Your task to perform on an android device: Go to CNN.com Image 0: 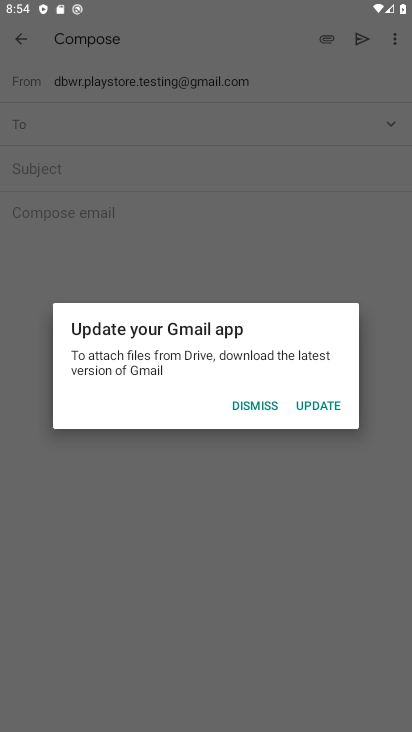
Step 0: press home button
Your task to perform on an android device: Go to CNN.com Image 1: 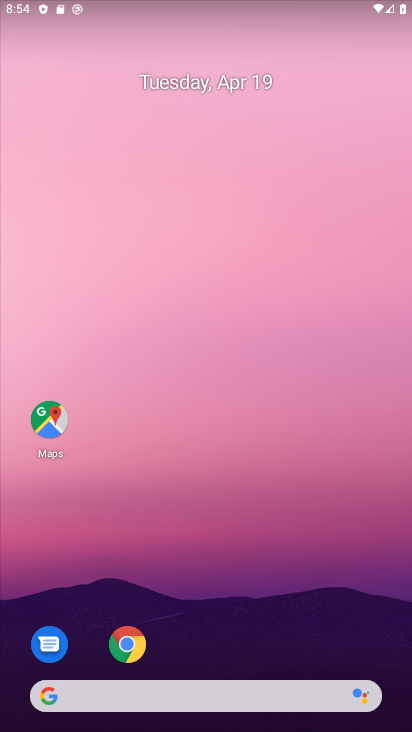
Step 1: click (121, 637)
Your task to perform on an android device: Go to CNN.com Image 2: 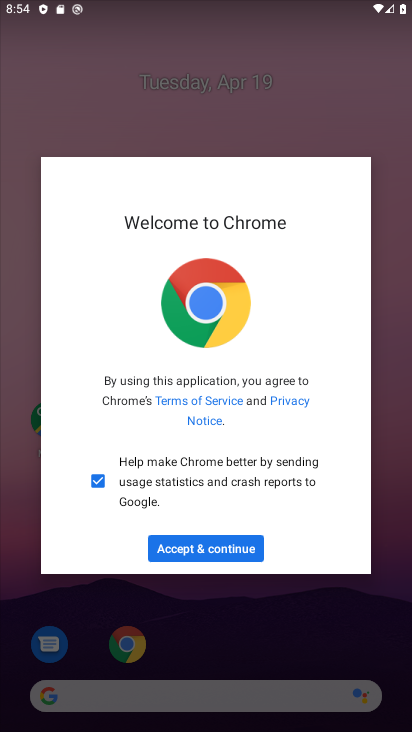
Step 2: click (221, 552)
Your task to perform on an android device: Go to CNN.com Image 3: 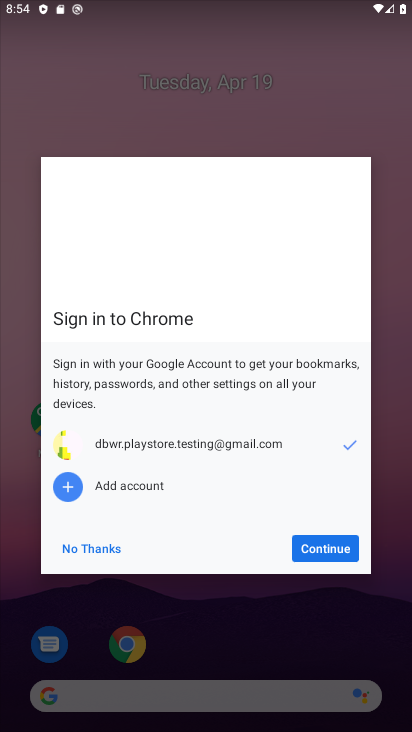
Step 3: click (324, 550)
Your task to perform on an android device: Go to CNN.com Image 4: 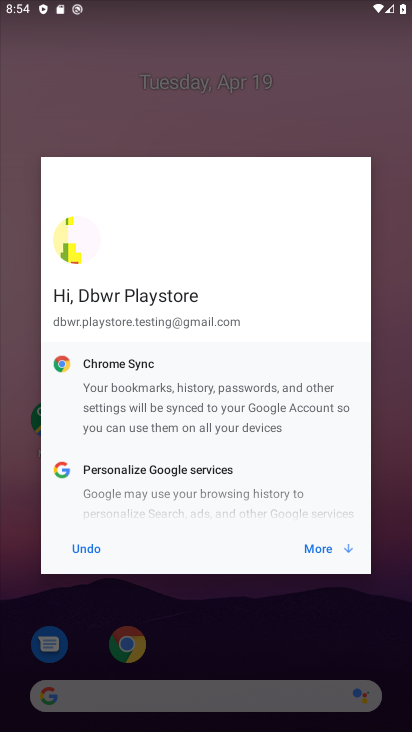
Step 4: click (324, 550)
Your task to perform on an android device: Go to CNN.com Image 5: 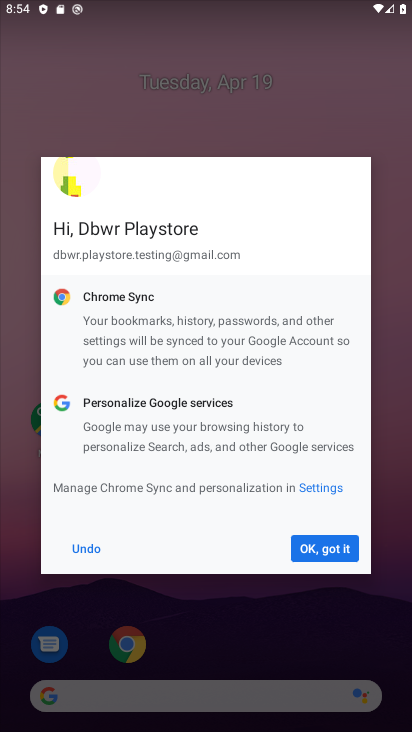
Step 5: click (324, 550)
Your task to perform on an android device: Go to CNN.com Image 6: 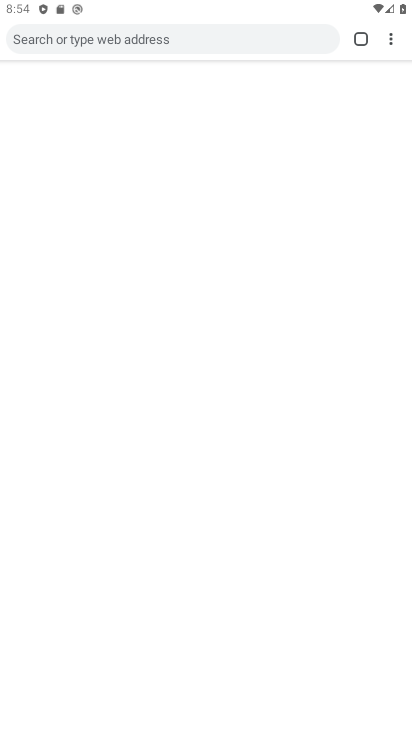
Step 6: click (324, 550)
Your task to perform on an android device: Go to CNN.com Image 7: 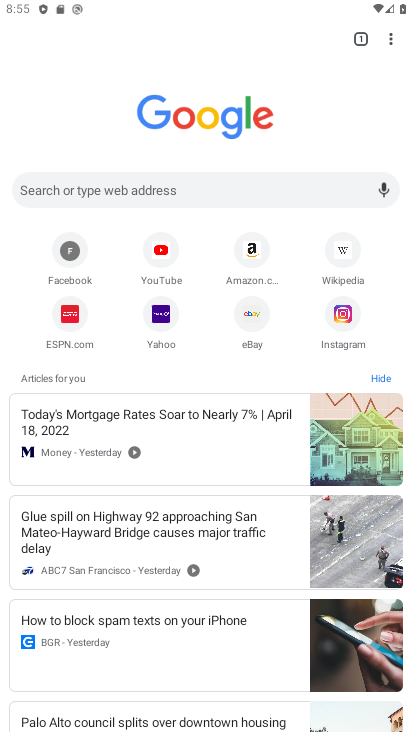
Step 7: click (161, 183)
Your task to perform on an android device: Go to CNN.com Image 8: 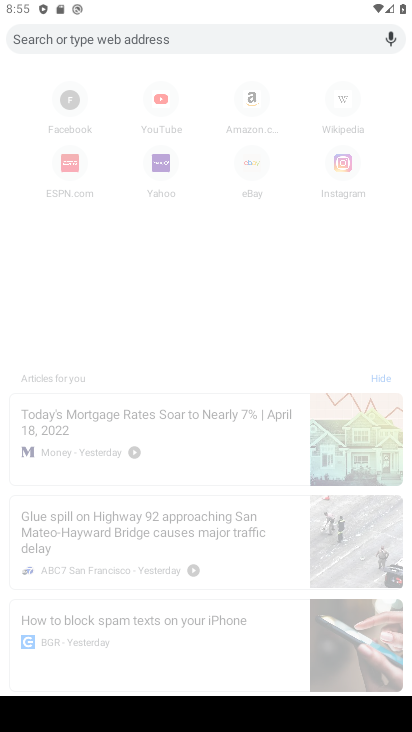
Step 8: type "CNN.com"
Your task to perform on an android device: Go to CNN.com Image 9: 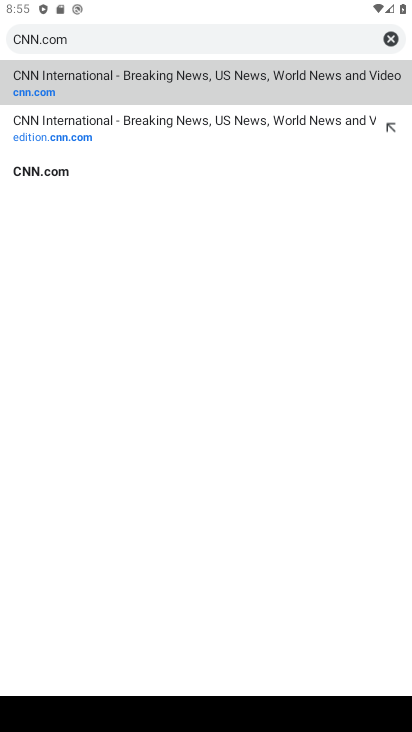
Step 9: click (53, 167)
Your task to perform on an android device: Go to CNN.com Image 10: 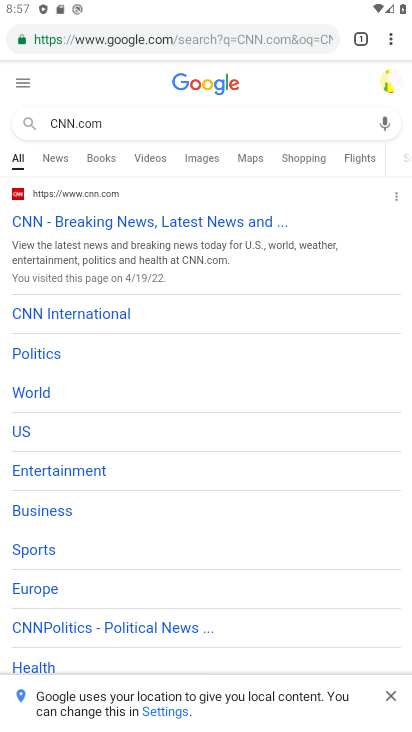
Step 10: click (151, 225)
Your task to perform on an android device: Go to CNN.com Image 11: 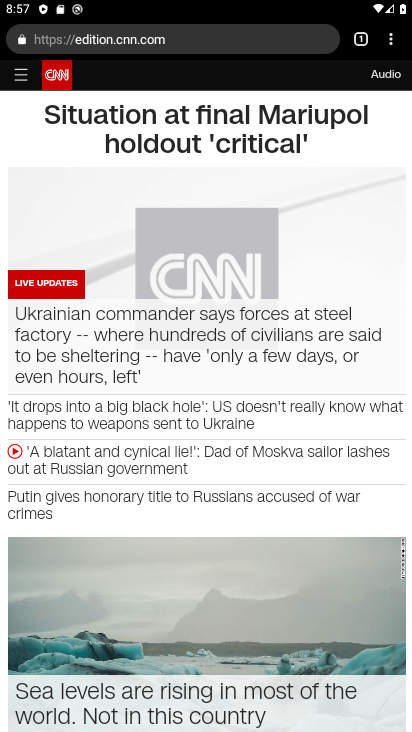
Step 11: task complete